Your task to perform on an android device: Show me productivity apps on the Play Store Image 0: 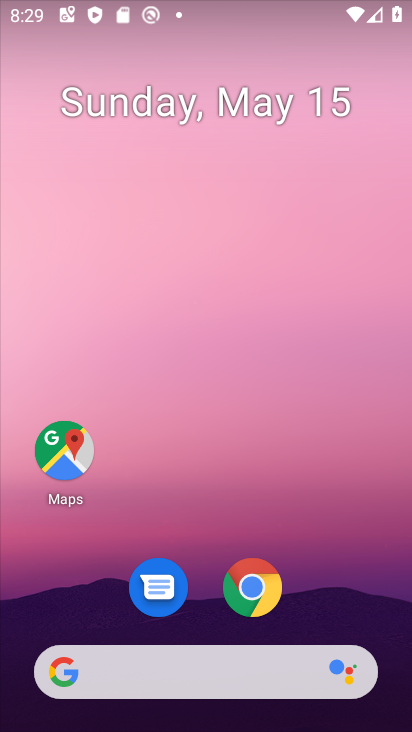
Step 0: drag from (371, 543) to (283, 73)
Your task to perform on an android device: Show me productivity apps on the Play Store Image 1: 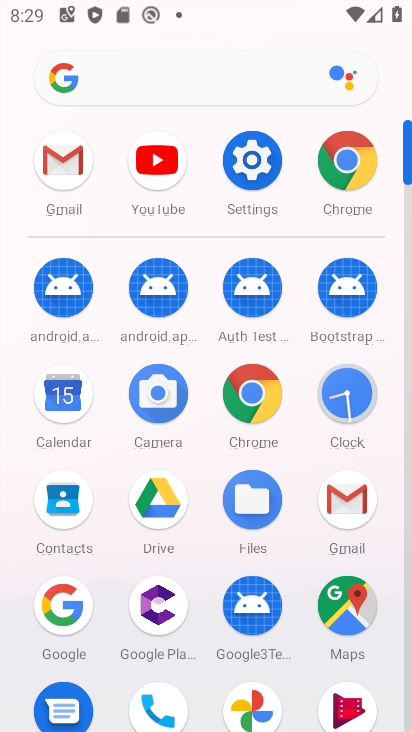
Step 1: drag from (207, 671) to (193, 131)
Your task to perform on an android device: Show me productivity apps on the Play Store Image 2: 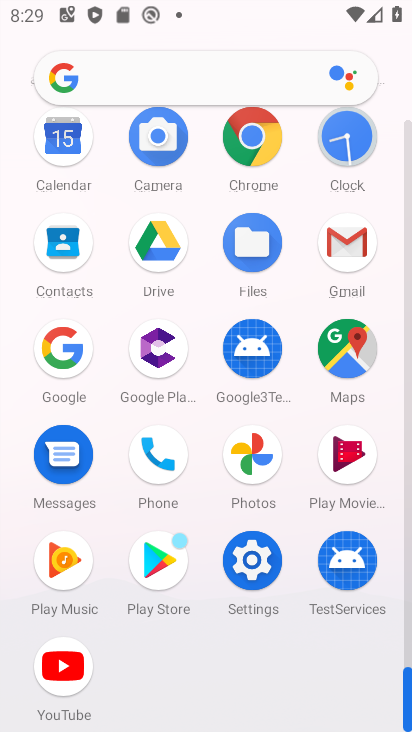
Step 2: click (181, 561)
Your task to perform on an android device: Show me productivity apps on the Play Store Image 3: 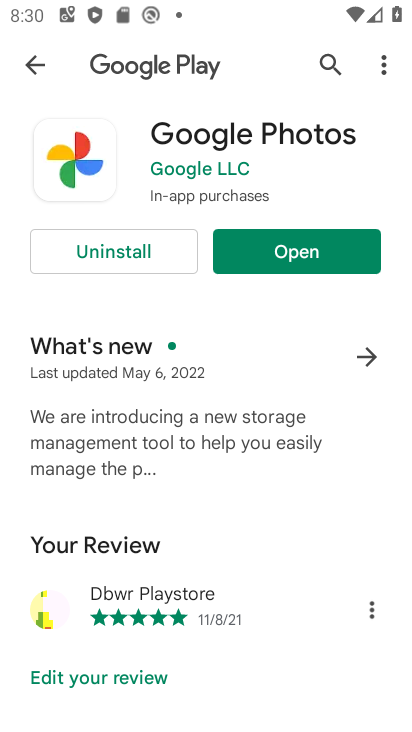
Step 3: press back button
Your task to perform on an android device: Show me productivity apps on the Play Store Image 4: 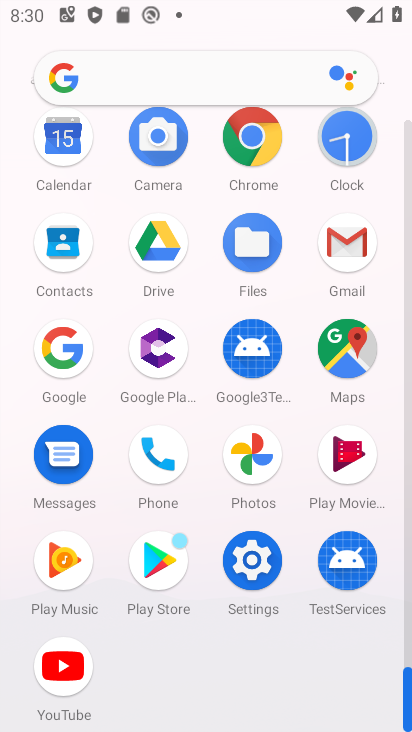
Step 4: click (168, 555)
Your task to perform on an android device: Show me productivity apps on the Play Store Image 5: 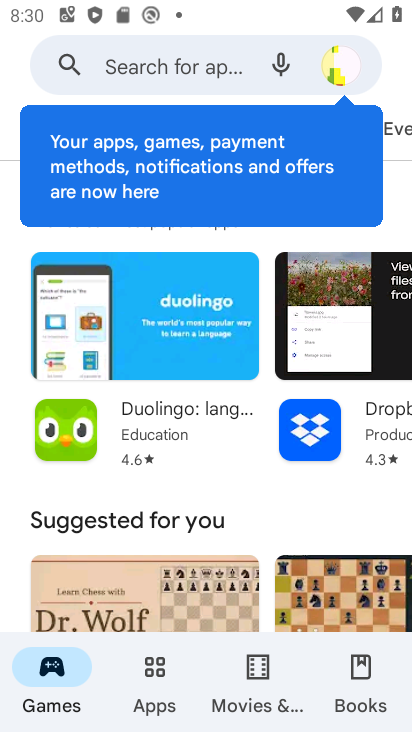
Step 5: task complete